Your task to perform on an android device: Go to Amazon Image 0: 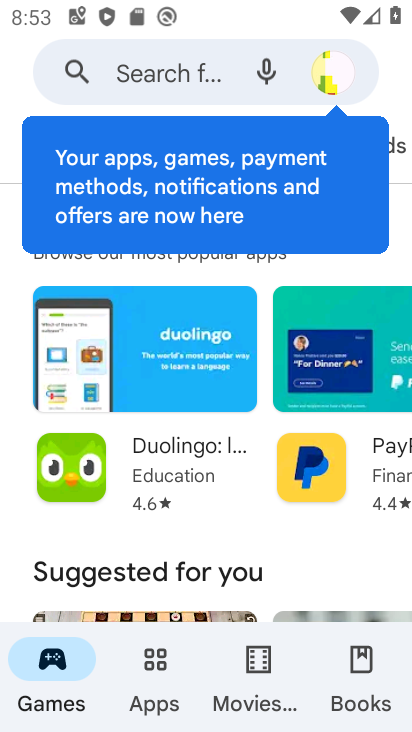
Step 0: press home button
Your task to perform on an android device: Go to Amazon Image 1: 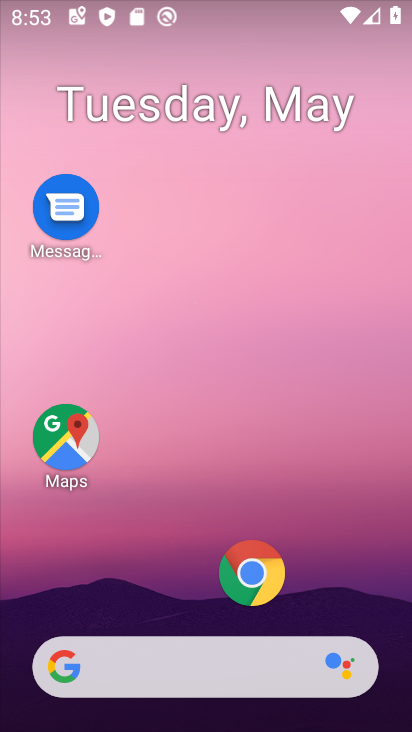
Step 1: drag from (328, 662) to (200, 142)
Your task to perform on an android device: Go to Amazon Image 2: 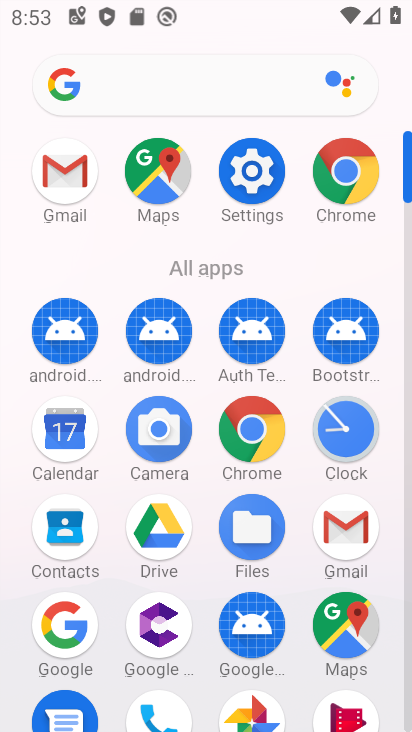
Step 2: click (339, 179)
Your task to perform on an android device: Go to Amazon Image 3: 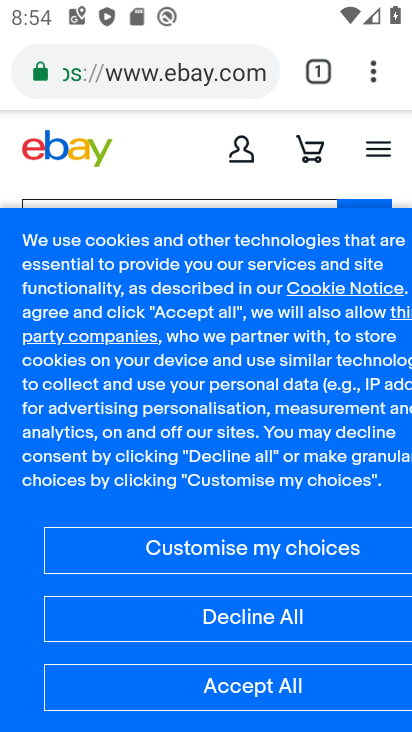
Step 3: click (371, 69)
Your task to perform on an android device: Go to Amazon Image 4: 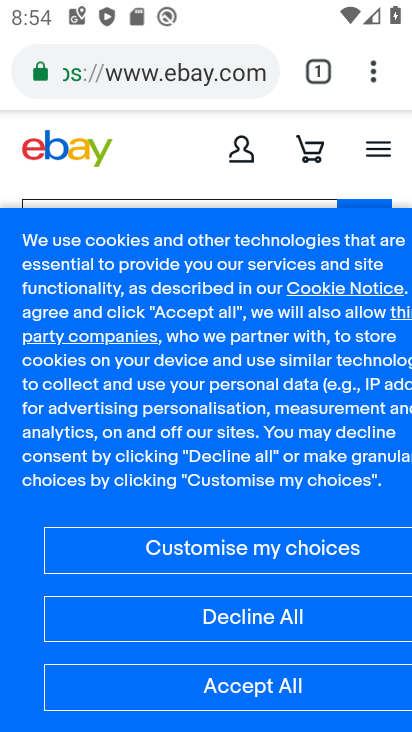
Step 4: drag from (368, 68) to (126, 141)
Your task to perform on an android device: Go to Amazon Image 5: 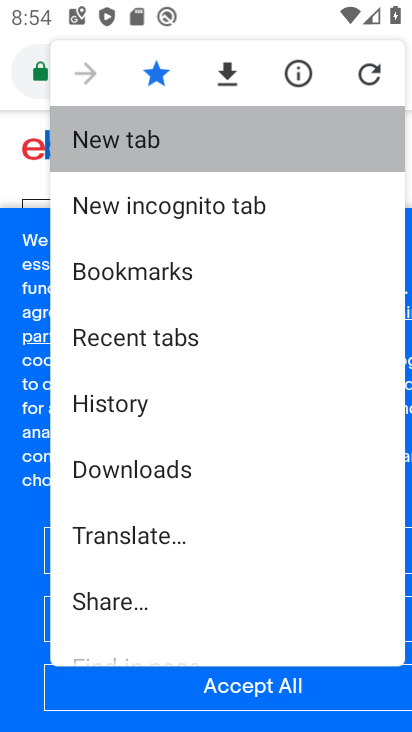
Step 5: click (124, 141)
Your task to perform on an android device: Go to Amazon Image 6: 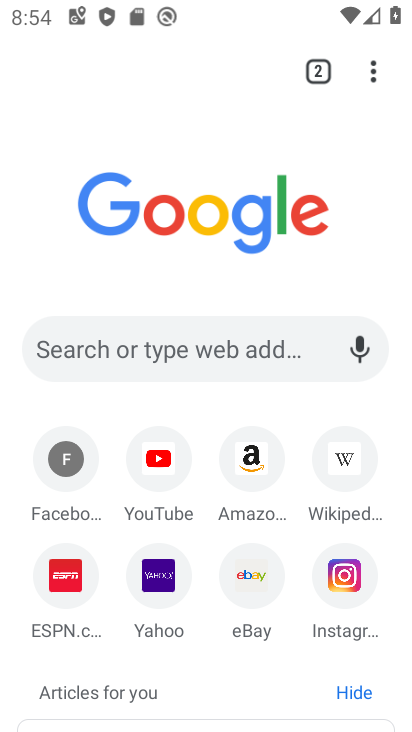
Step 6: click (248, 454)
Your task to perform on an android device: Go to Amazon Image 7: 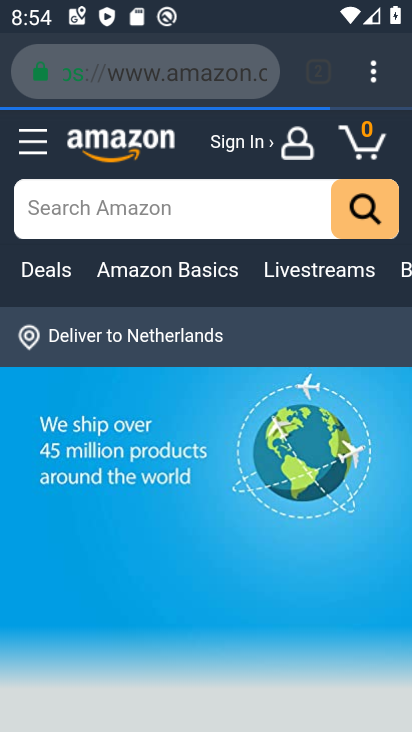
Step 7: click (248, 454)
Your task to perform on an android device: Go to Amazon Image 8: 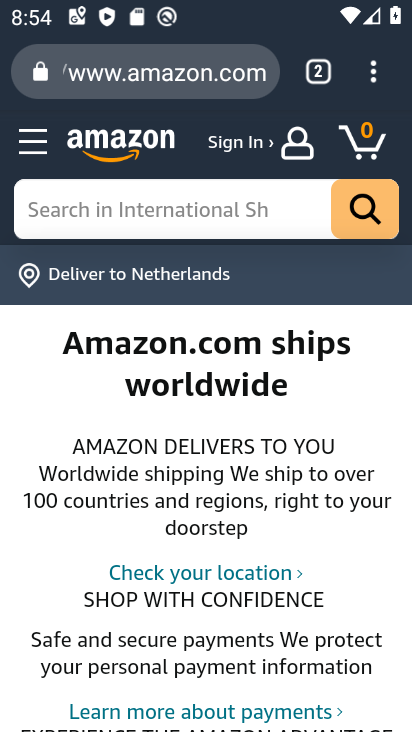
Step 8: task complete